Your task to perform on an android device: change the clock display to analog Image 0: 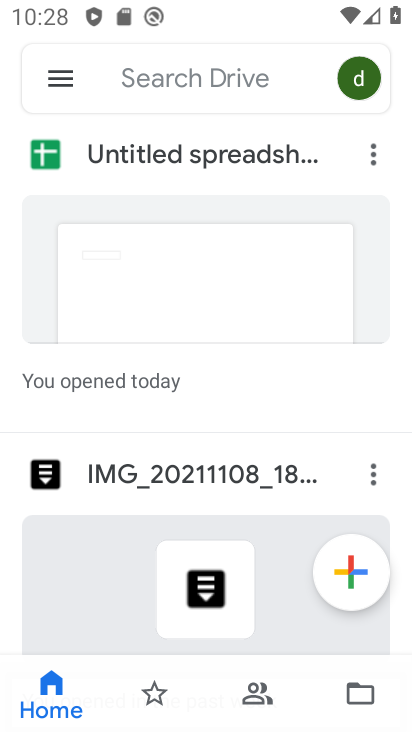
Step 0: press home button
Your task to perform on an android device: change the clock display to analog Image 1: 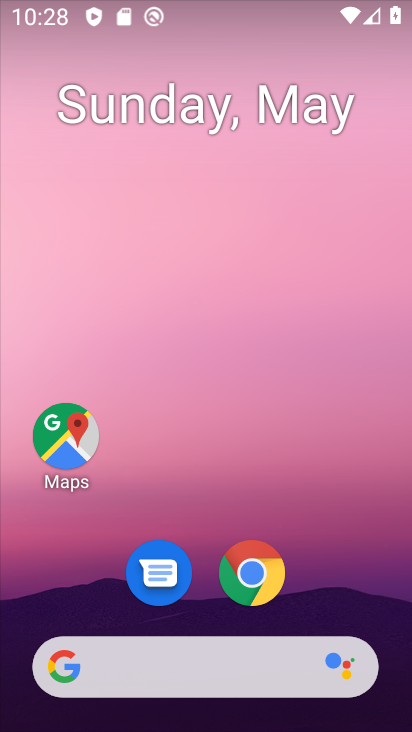
Step 1: drag from (224, 619) to (224, 366)
Your task to perform on an android device: change the clock display to analog Image 2: 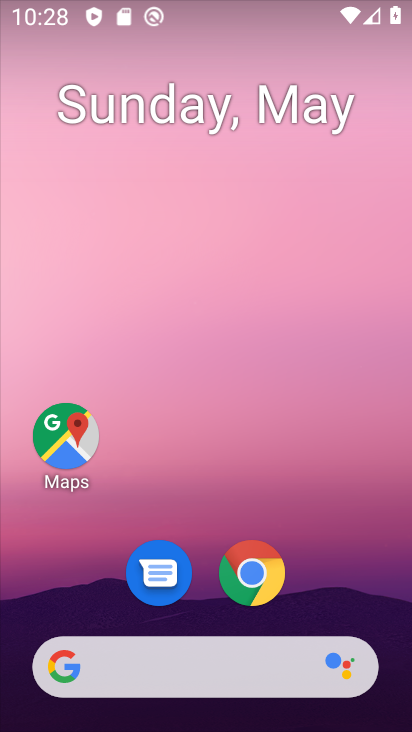
Step 2: drag from (211, 604) to (235, 183)
Your task to perform on an android device: change the clock display to analog Image 3: 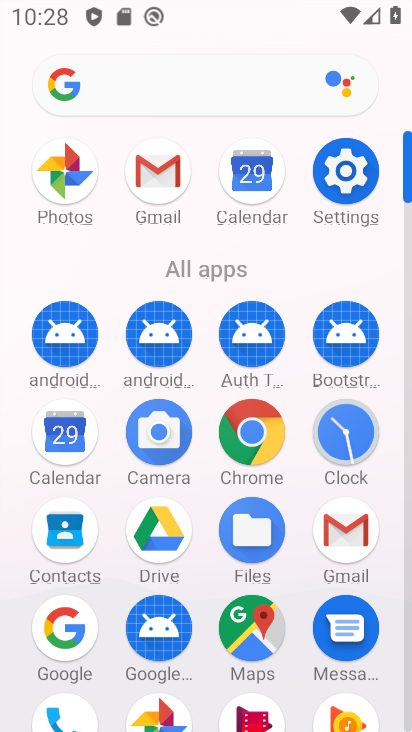
Step 3: click (343, 421)
Your task to perform on an android device: change the clock display to analog Image 4: 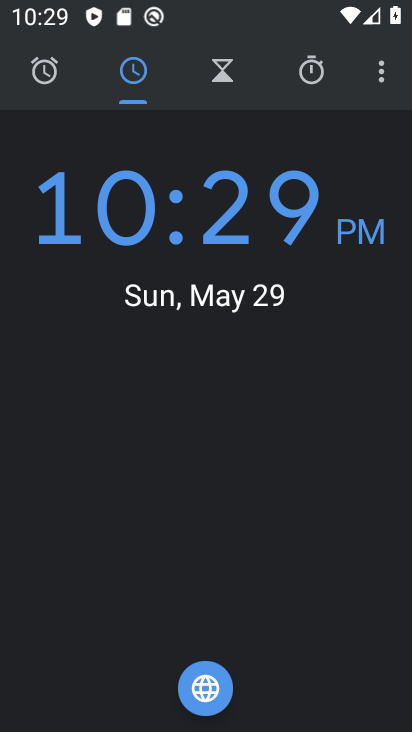
Step 4: click (378, 79)
Your task to perform on an android device: change the clock display to analog Image 5: 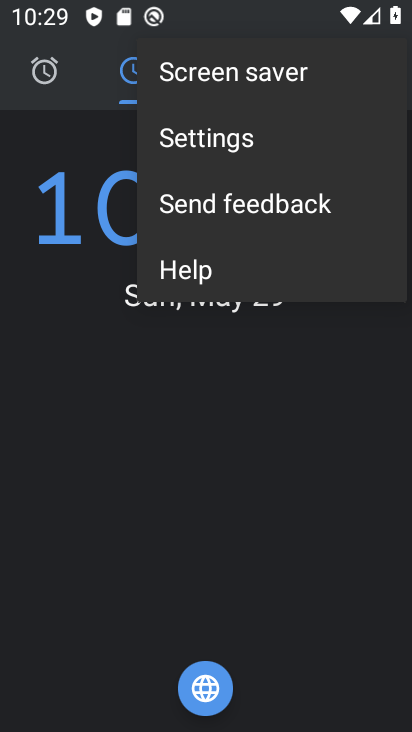
Step 5: click (249, 152)
Your task to perform on an android device: change the clock display to analog Image 6: 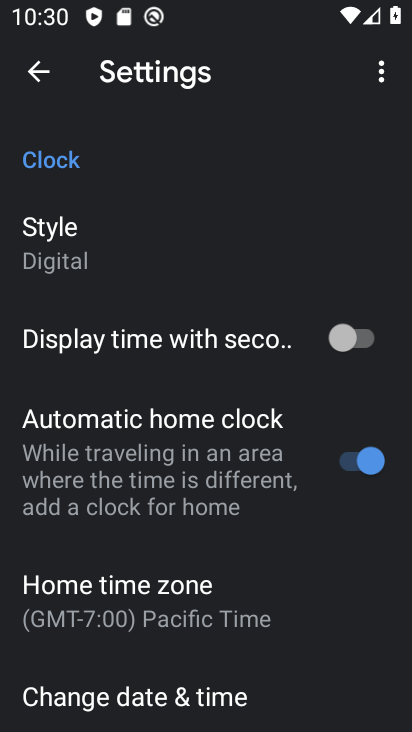
Step 6: drag from (236, 552) to (272, 301)
Your task to perform on an android device: change the clock display to analog Image 7: 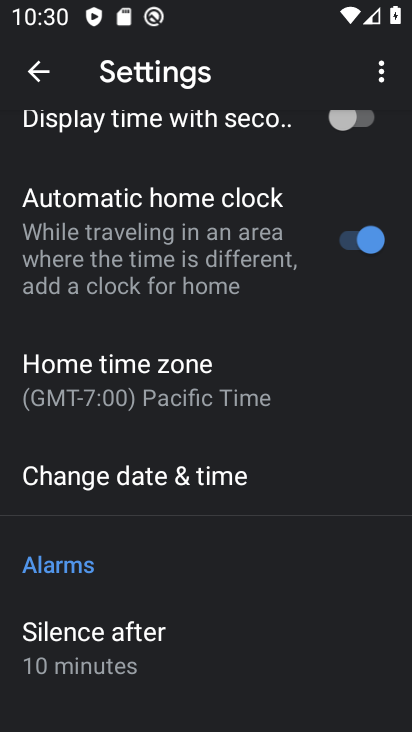
Step 7: drag from (214, 164) to (217, 718)
Your task to perform on an android device: change the clock display to analog Image 8: 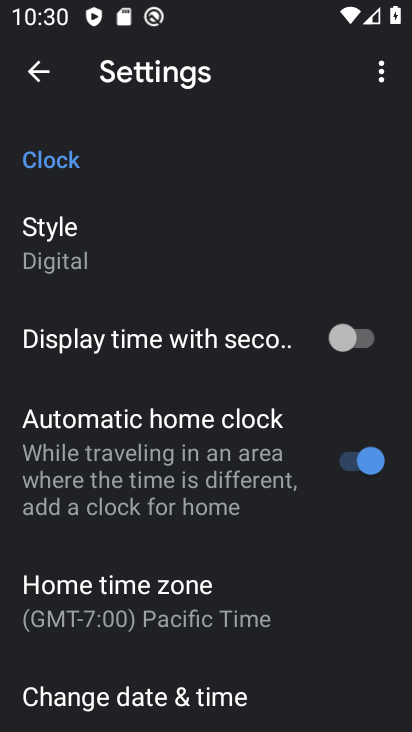
Step 8: click (79, 268)
Your task to perform on an android device: change the clock display to analog Image 9: 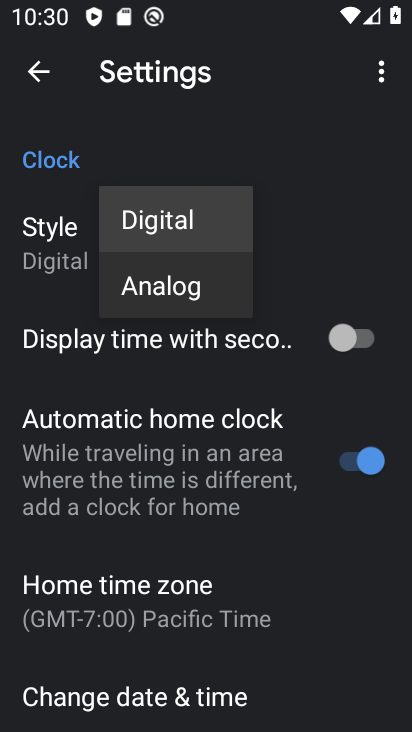
Step 9: click (192, 283)
Your task to perform on an android device: change the clock display to analog Image 10: 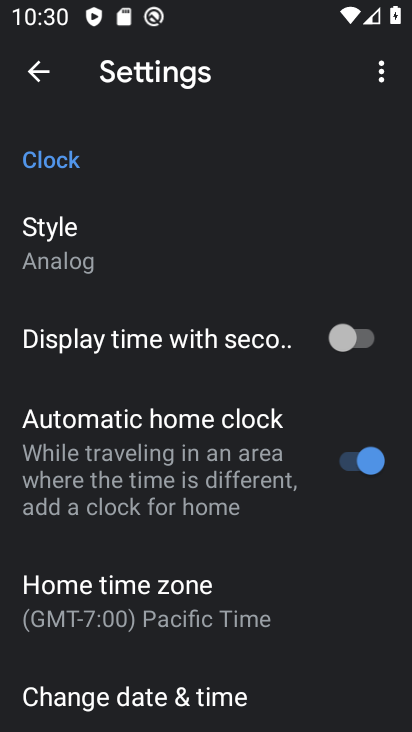
Step 10: task complete